Your task to perform on an android device: Open Google Image 0: 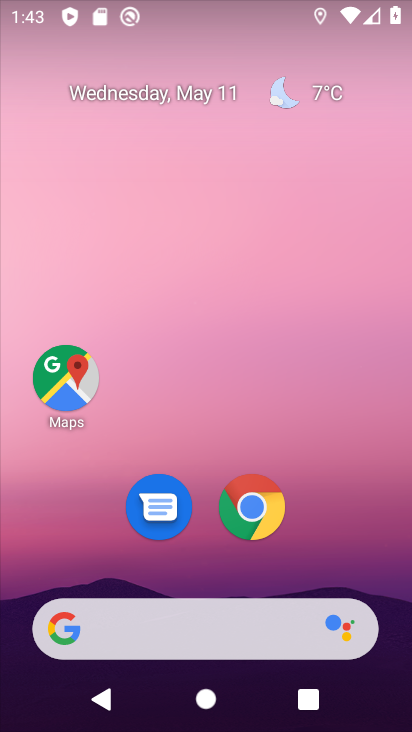
Step 0: drag from (328, 532) to (264, 0)
Your task to perform on an android device: Open Google Image 1: 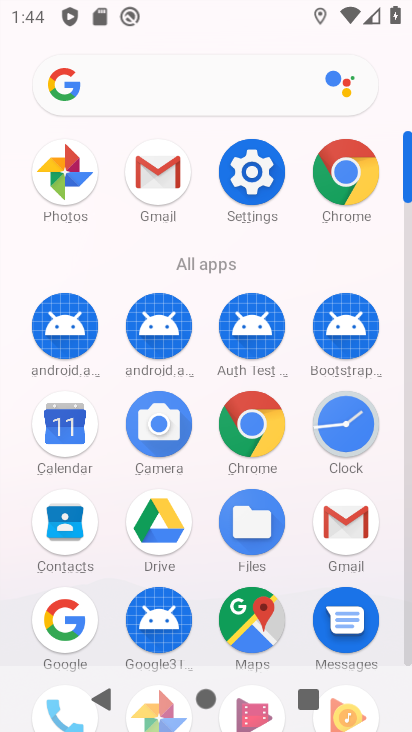
Step 1: drag from (17, 570) to (9, 214)
Your task to perform on an android device: Open Google Image 2: 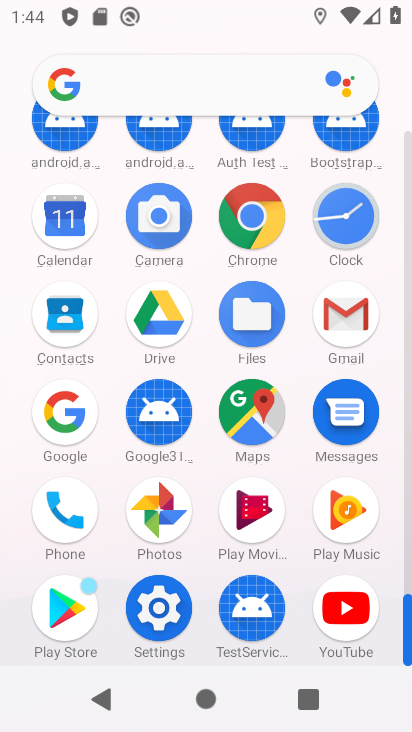
Step 2: click (242, 208)
Your task to perform on an android device: Open Google Image 3: 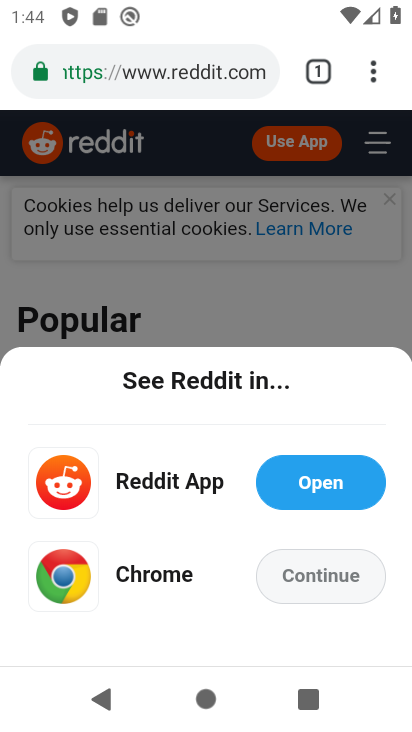
Step 3: click (196, 70)
Your task to perform on an android device: Open Google Image 4: 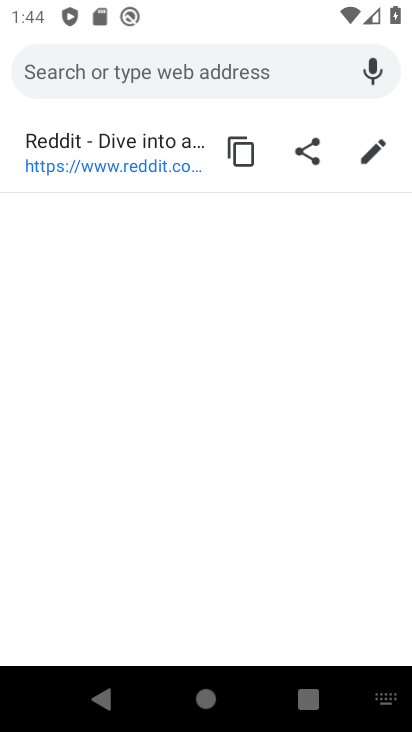
Step 4: type "Google"
Your task to perform on an android device: Open Google Image 5: 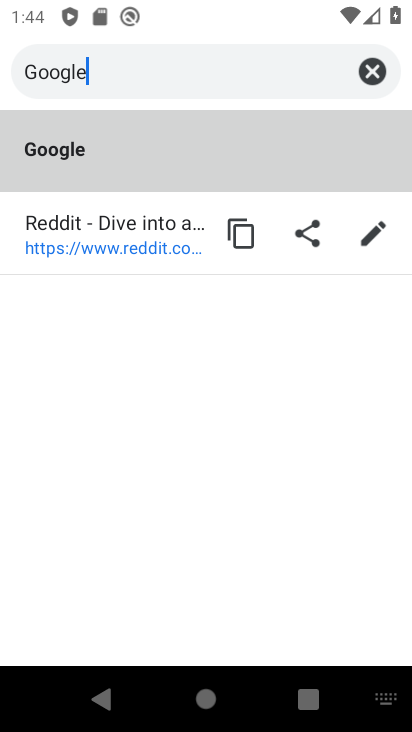
Step 5: type ""
Your task to perform on an android device: Open Google Image 6: 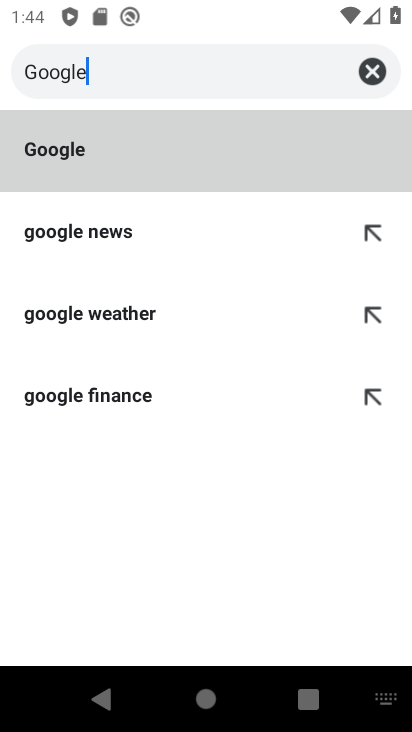
Step 6: click (133, 152)
Your task to perform on an android device: Open Google Image 7: 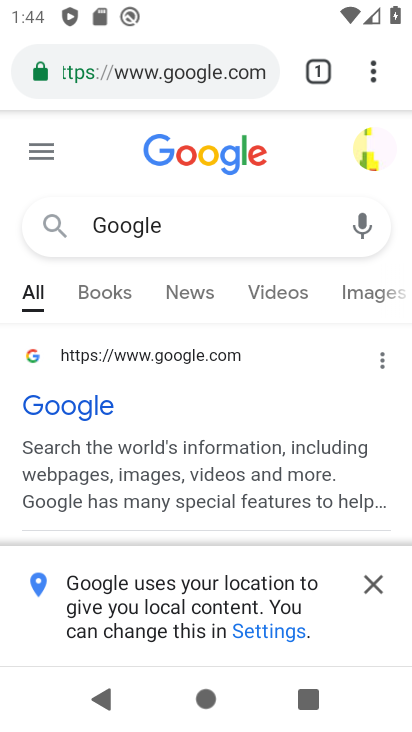
Step 7: click (69, 394)
Your task to perform on an android device: Open Google Image 8: 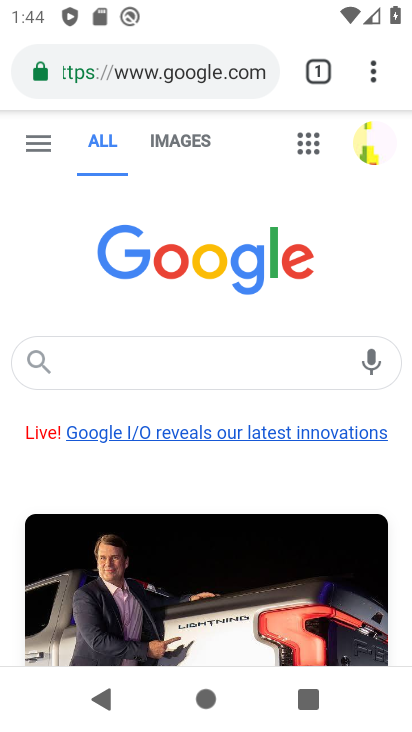
Step 8: task complete